Your task to perform on an android device: Open sound settings Image 0: 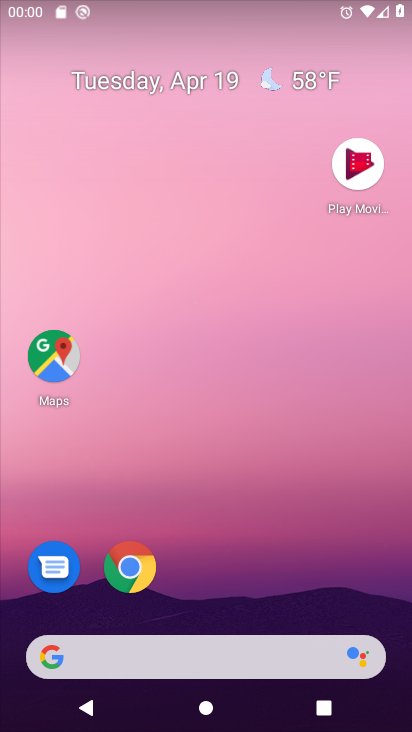
Step 0: drag from (227, 96) to (227, 17)
Your task to perform on an android device: Open sound settings Image 1: 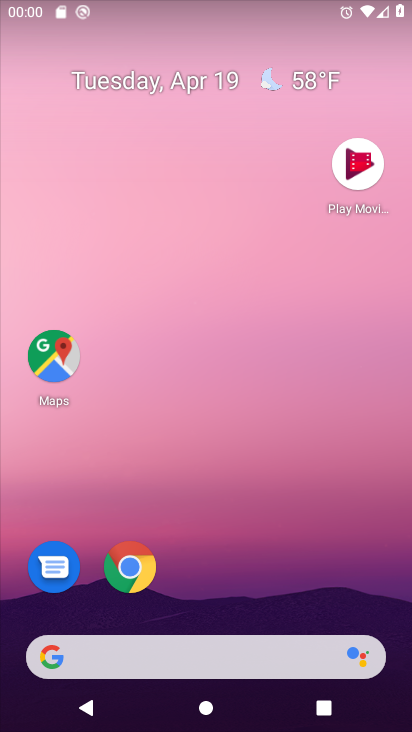
Step 1: drag from (229, 487) to (277, 45)
Your task to perform on an android device: Open sound settings Image 2: 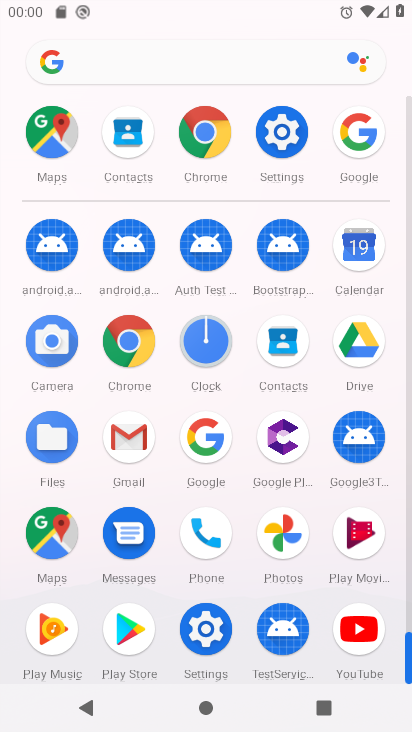
Step 2: click (191, 608)
Your task to perform on an android device: Open sound settings Image 3: 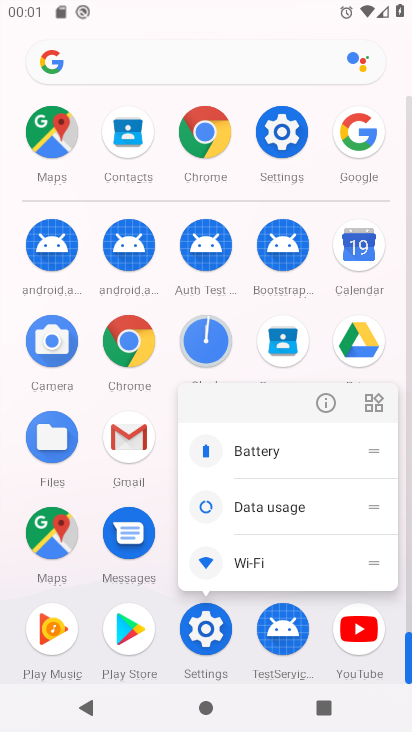
Step 3: click (335, 406)
Your task to perform on an android device: Open sound settings Image 4: 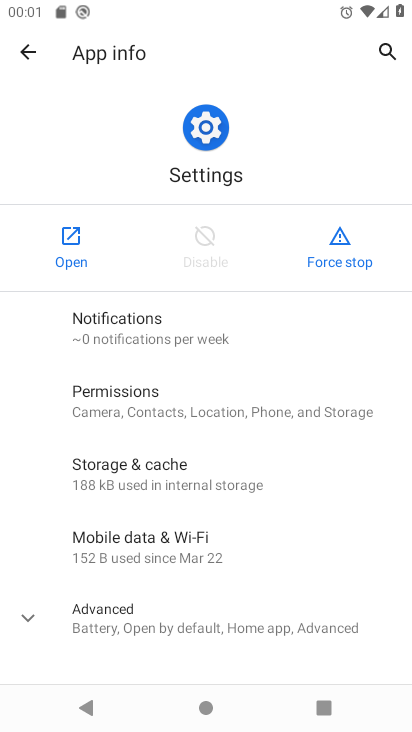
Step 4: click (84, 250)
Your task to perform on an android device: Open sound settings Image 5: 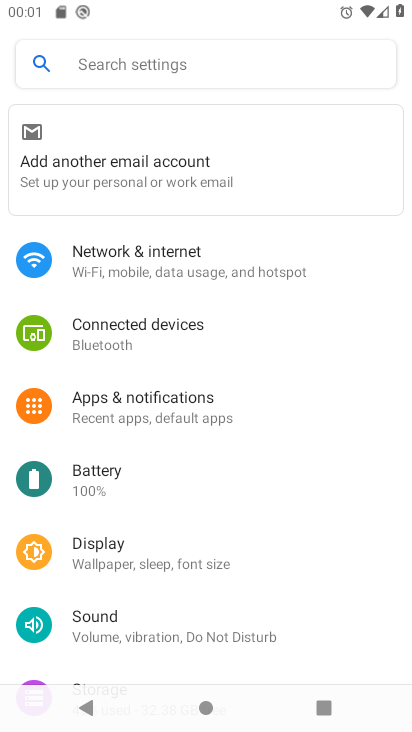
Step 5: drag from (243, 518) to (262, 299)
Your task to perform on an android device: Open sound settings Image 6: 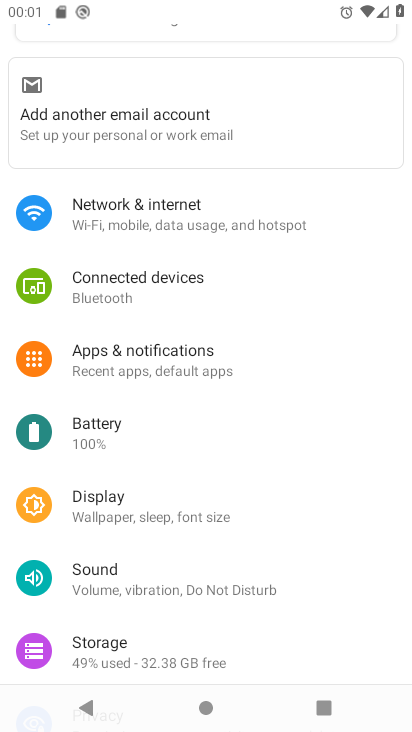
Step 6: click (105, 568)
Your task to perform on an android device: Open sound settings Image 7: 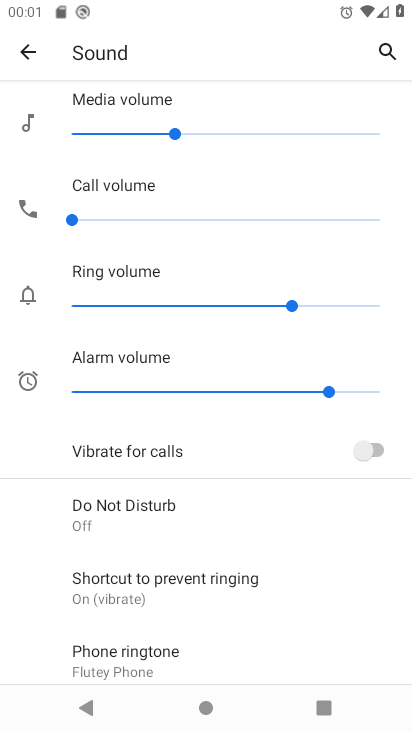
Step 7: task complete